Your task to perform on an android device: Open Wikipedia Image 0: 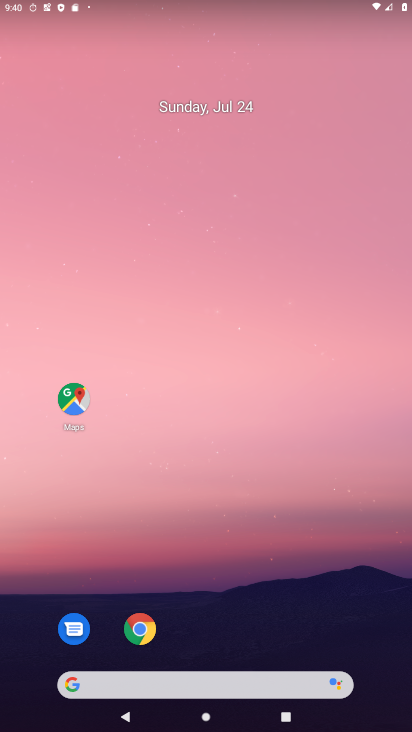
Step 0: drag from (198, 687) to (122, 115)
Your task to perform on an android device: Open Wikipedia Image 1: 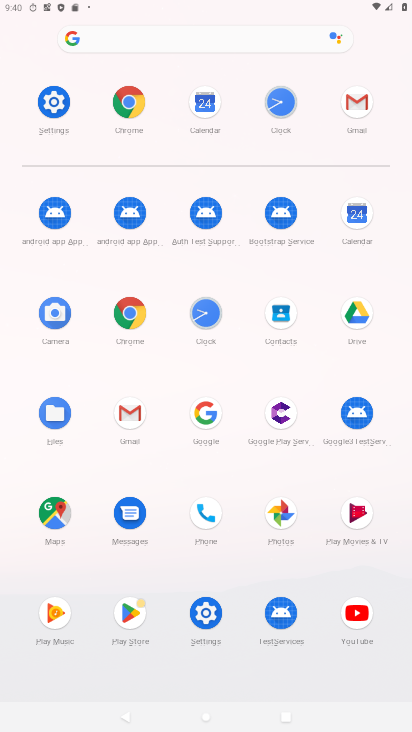
Step 1: click (119, 131)
Your task to perform on an android device: Open Wikipedia Image 2: 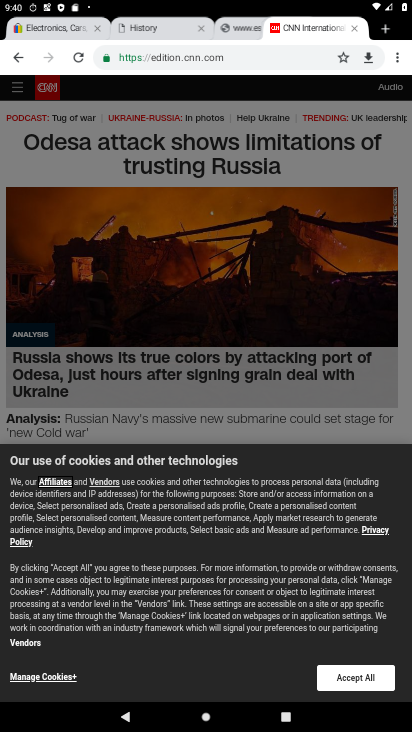
Step 2: click (252, 49)
Your task to perform on an android device: Open Wikipedia Image 3: 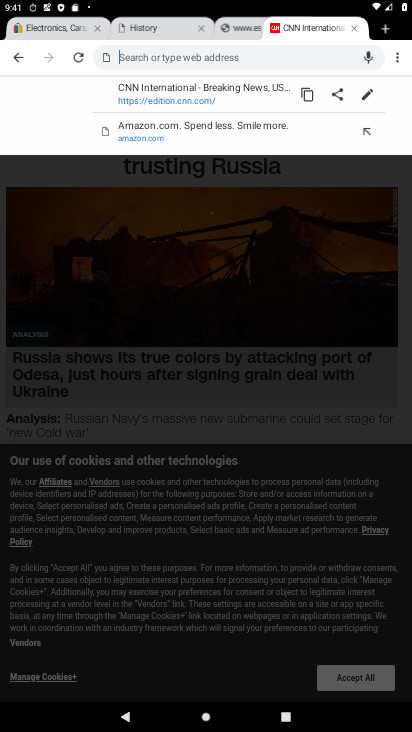
Step 3: type "wikipedia"
Your task to perform on an android device: Open Wikipedia Image 4: 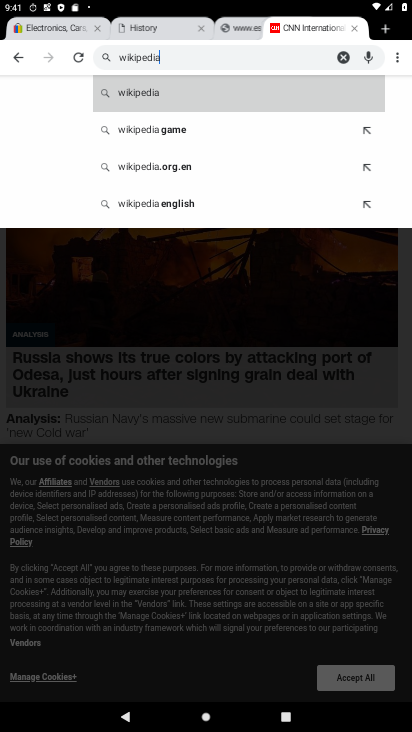
Step 4: click (129, 105)
Your task to perform on an android device: Open Wikipedia Image 5: 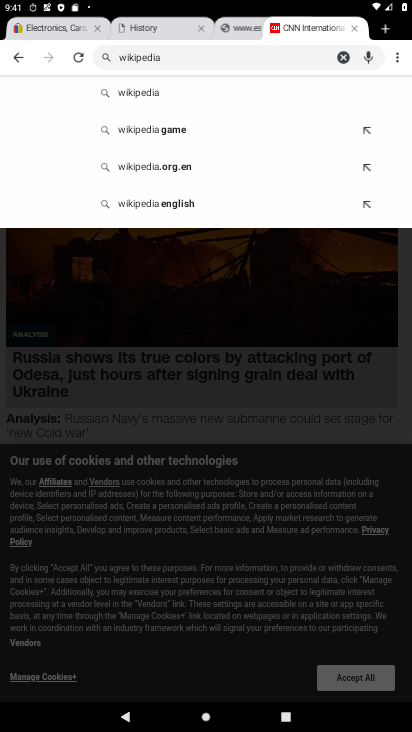
Step 5: click (172, 97)
Your task to perform on an android device: Open Wikipedia Image 6: 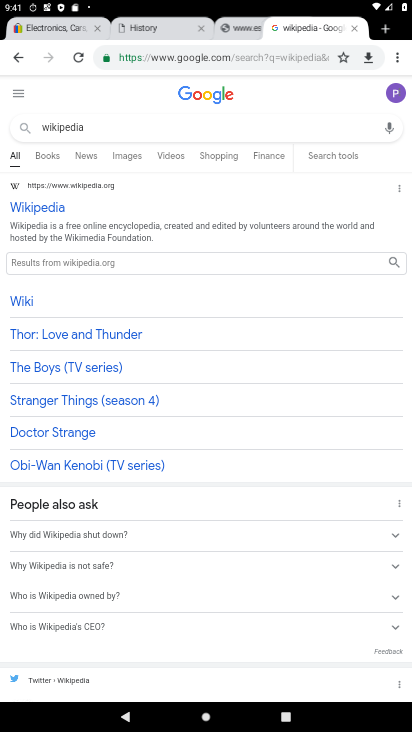
Step 6: click (35, 209)
Your task to perform on an android device: Open Wikipedia Image 7: 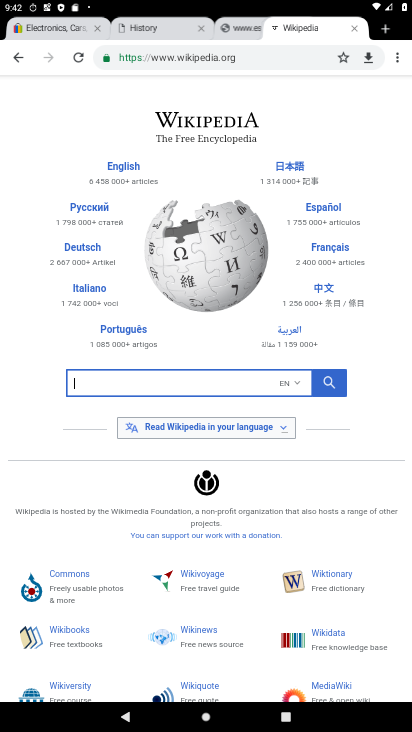
Step 7: task complete